Your task to perform on an android device: check storage Image 0: 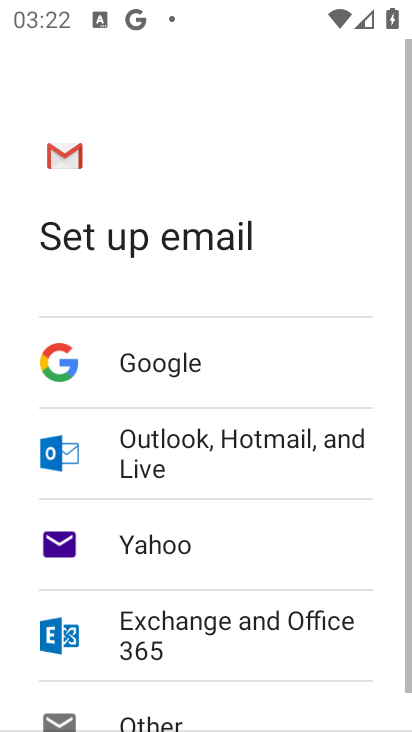
Step 0: press home button
Your task to perform on an android device: check storage Image 1: 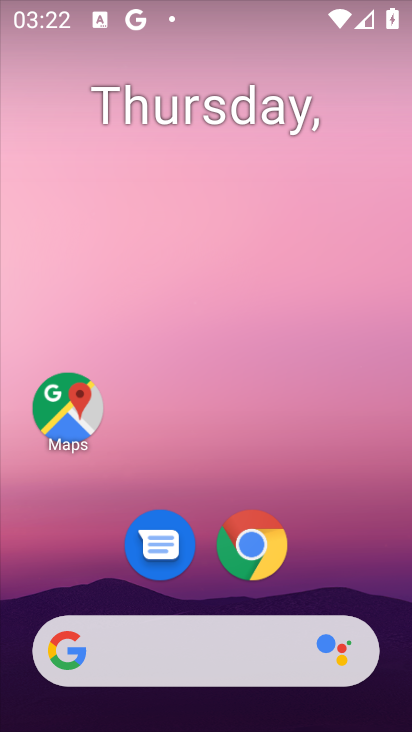
Step 1: drag from (274, 701) to (258, 160)
Your task to perform on an android device: check storage Image 2: 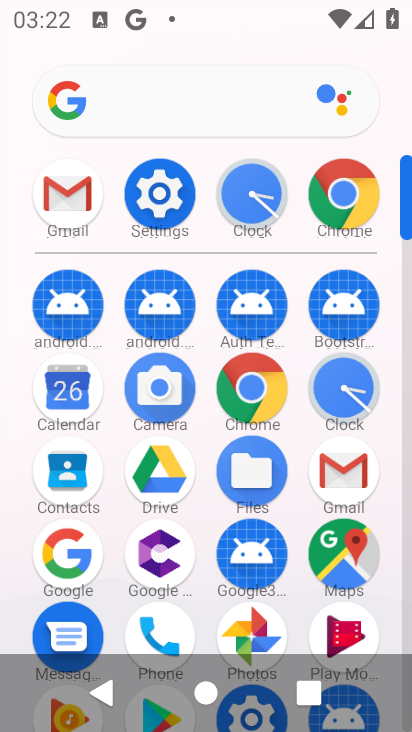
Step 2: click (150, 212)
Your task to perform on an android device: check storage Image 3: 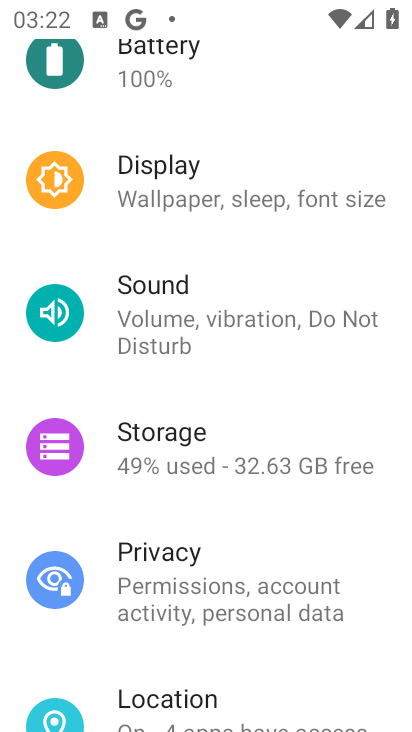
Step 3: click (151, 450)
Your task to perform on an android device: check storage Image 4: 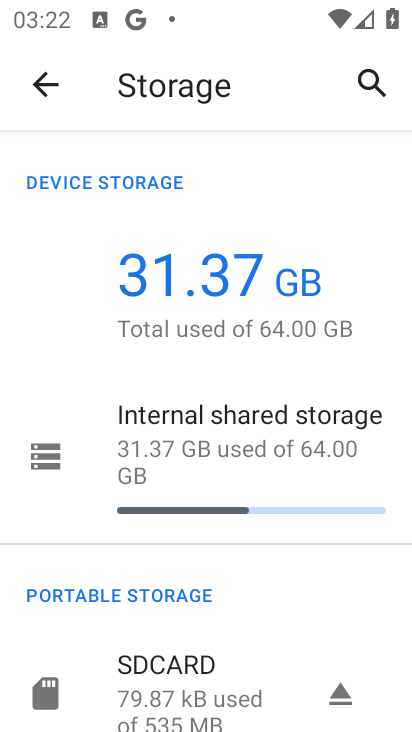
Step 4: task complete